Your task to perform on an android device: choose inbox layout in the gmail app Image 0: 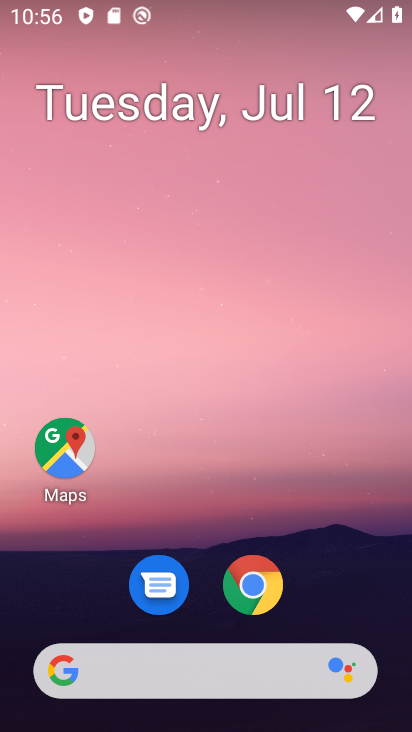
Step 0: drag from (320, 594) to (282, 41)
Your task to perform on an android device: choose inbox layout in the gmail app Image 1: 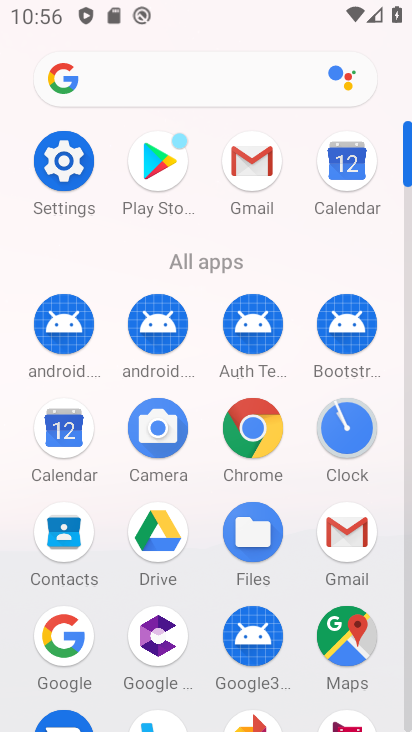
Step 1: click (262, 164)
Your task to perform on an android device: choose inbox layout in the gmail app Image 2: 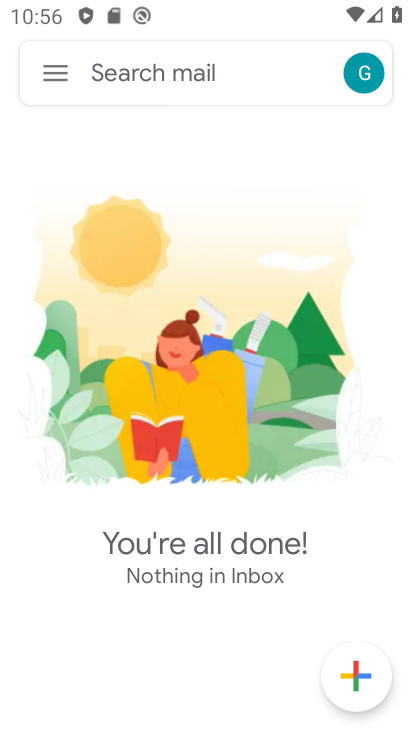
Step 2: click (56, 60)
Your task to perform on an android device: choose inbox layout in the gmail app Image 3: 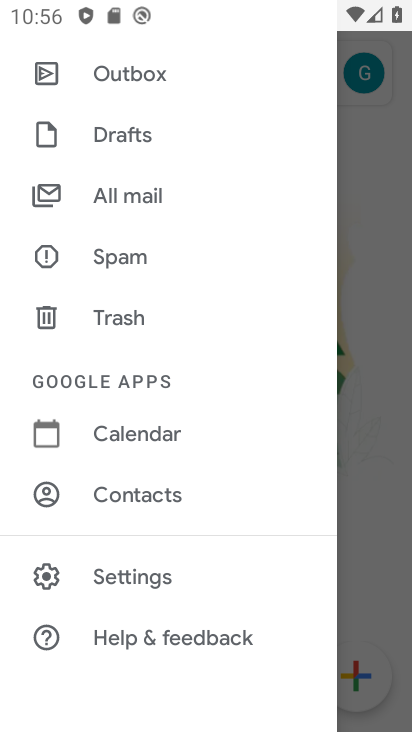
Step 3: click (137, 583)
Your task to perform on an android device: choose inbox layout in the gmail app Image 4: 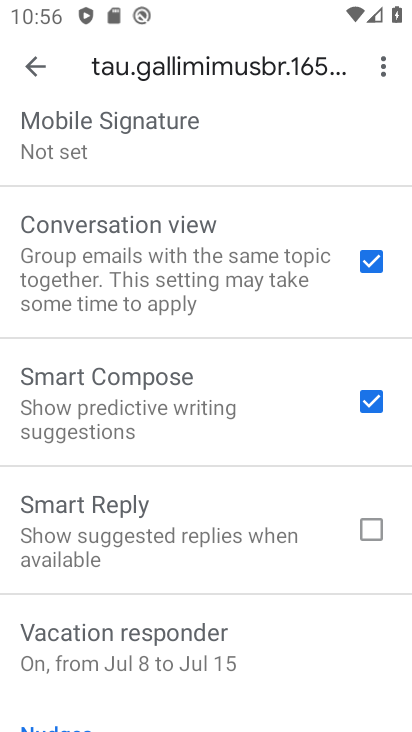
Step 4: drag from (153, 179) to (196, 669)
Your task to perform on an android device: choose inbox layout in the gmail app Image 5: 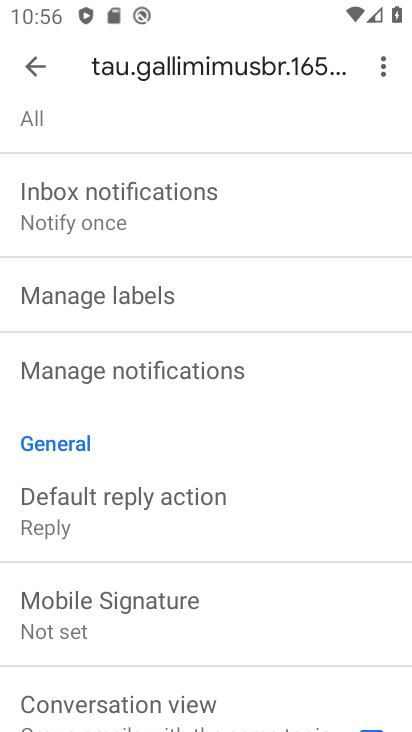
Step 5: drag from (238, 234) to (229, 648)
Your task to perform on an android device: choose inbox layout in the gmail app Image 6: 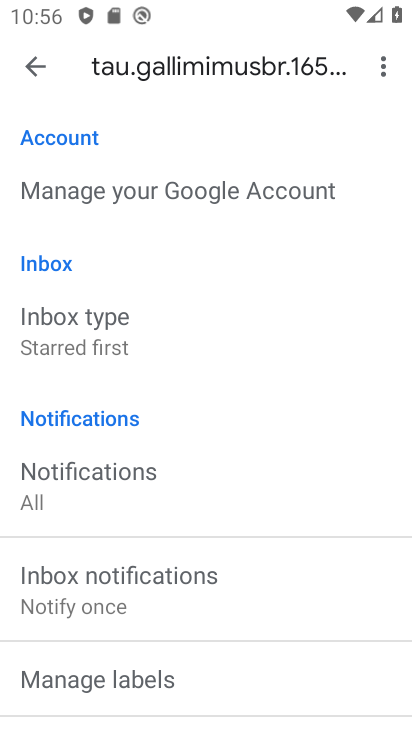
Step 6: click (108, 318)
Your task to perform on an android device: choose inbox layout in the gmail app Image 7: 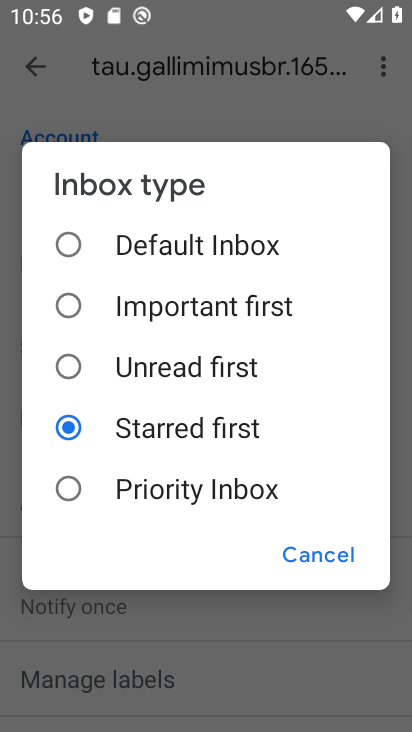
Step 7: click (68, 246)
Your task to perform on an android device: choose inbox layout in the gmail app Image 8: 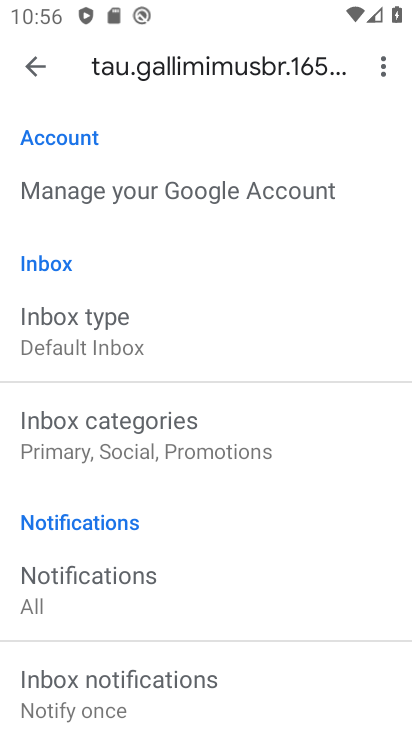
Step 8: task complete